Your task to perform on an android device: turn on notifications settings in the gmail app Image 0: 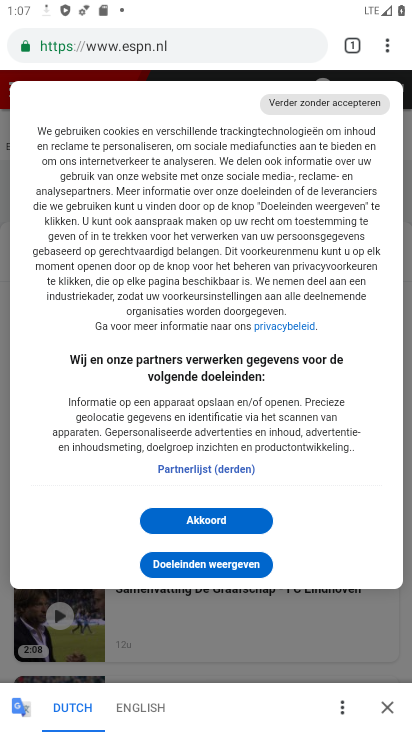
Step 0: press home button
Your task to perform on an android device: turn on notifications settings in the gmail app Image 1: 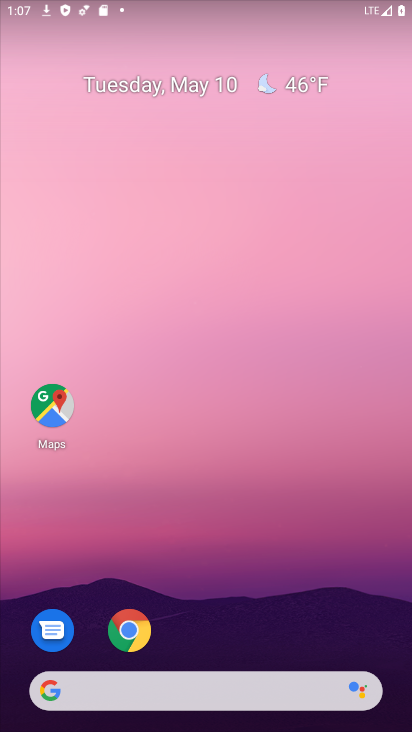
Step 1: drag from (187, 665) to (60, 44)
Your task to perform on an android device: turn on notifications settings in the gmail app Image 2: 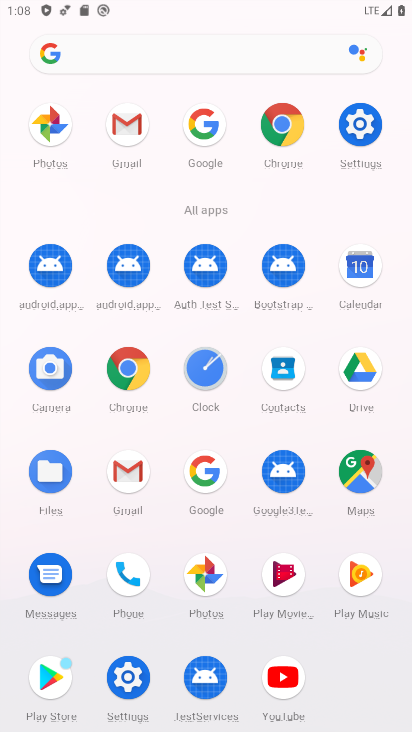
Step 2: click (128, 470)
Your task to perform on an android device: turn on notifications settings in the gmail app Image 3: 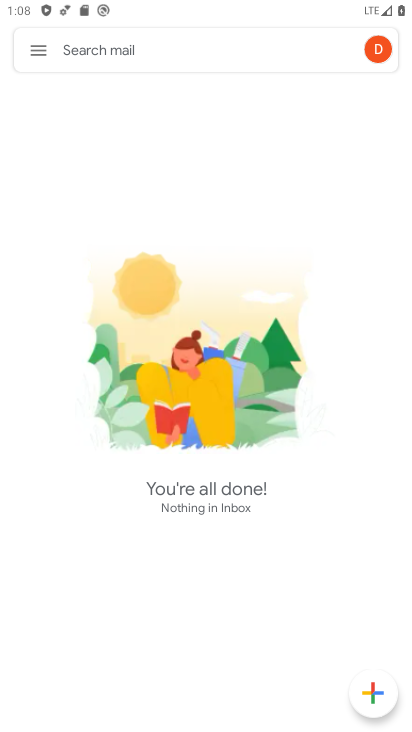
Step 3: click (34, 48)
Your task to perform on an android device: turn on notifications settings in the gmail app Image 4: 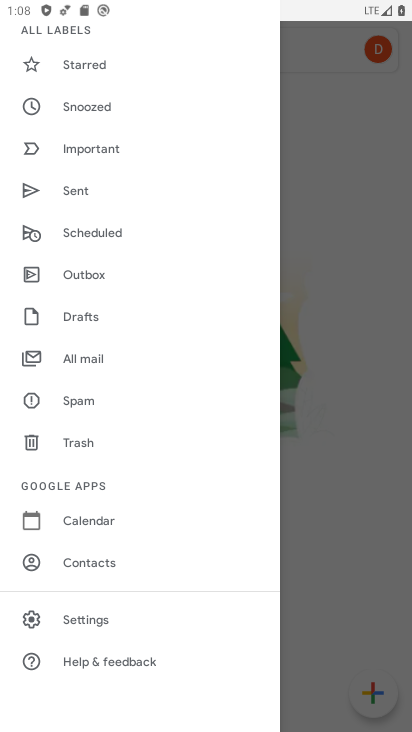
Step 4: click (72, 613)
Your task to perform on an android device: turn on notifications settings in the gmail app Image 5: 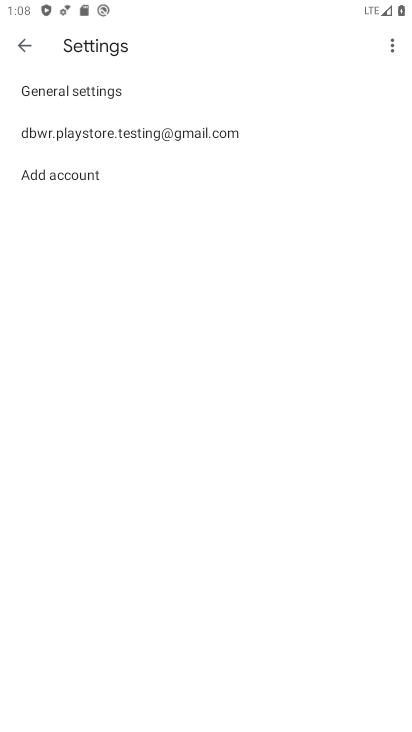
Step 5: click (43, 87)
Your task to perform on an android device: turn on notifications settings in the gmail app Image 6: 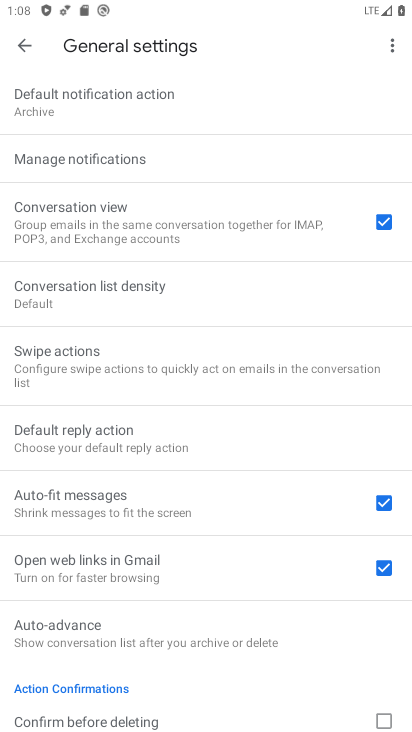
Step 6: click (85, 148)
Your task to perform on an android device: turn on notifications settings in the gmail app Image 7: 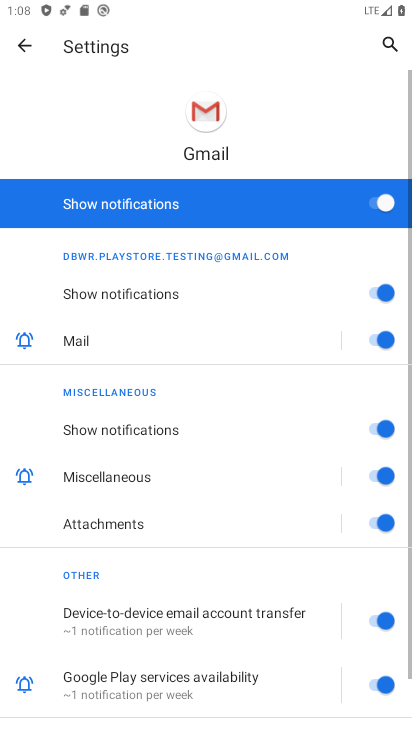
Step 7: click (373, 200)
Your task to perform on an android device: turn on notifications settings in the gmail app Image 8: 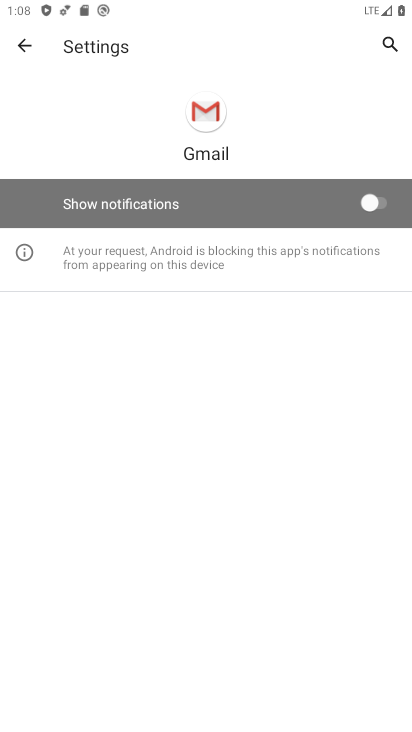
Step 8: task complete